Your task to perform on an android device: turn on sleep mode Image 0: 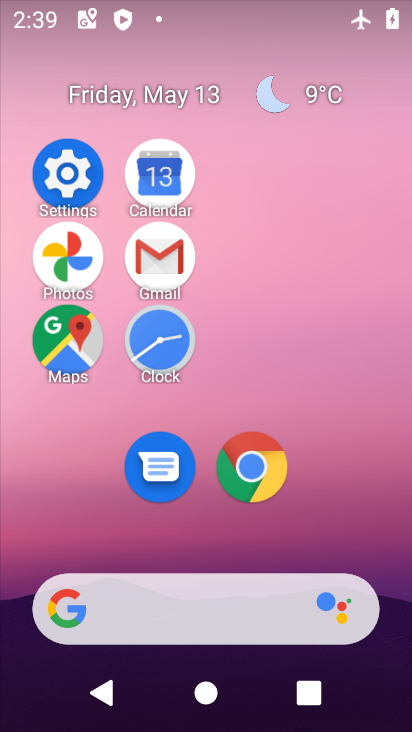
Step 0: click (89, 194)
Your task to perform on an android device: turn on sleep mode Image 1: 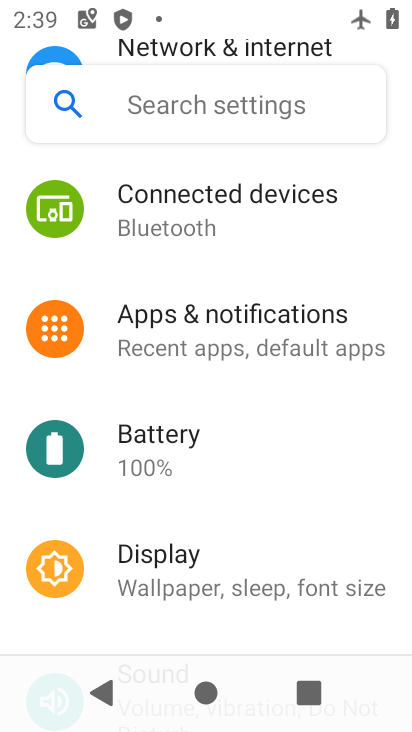
Step 1: drag from (276, 248) to (291, 86)
Your task to perform on an android device: turn on sleep mode Image 2: 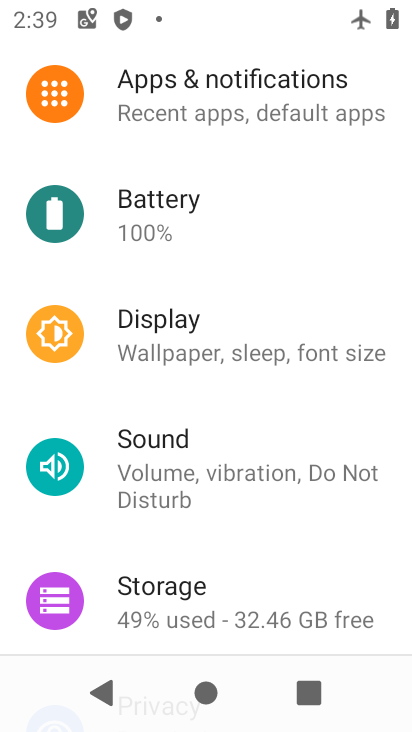
Step 2: click (228, 366)
Your task to perform on an android device: turn on sleep mode Image 3: 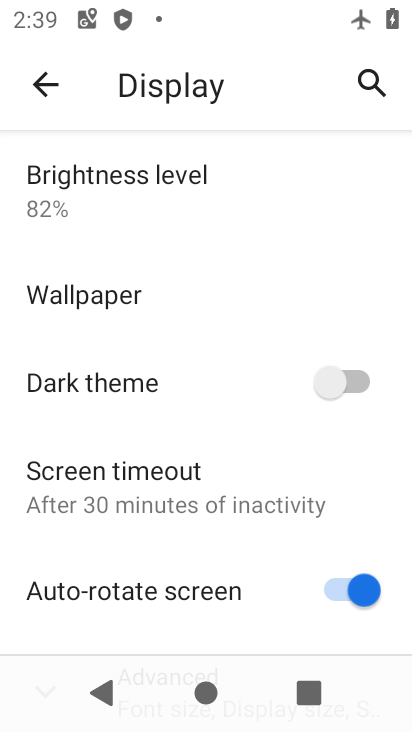
Step 3: click (222, 502)
Your task to perform on an android device: turn on sleep mode Image 4: 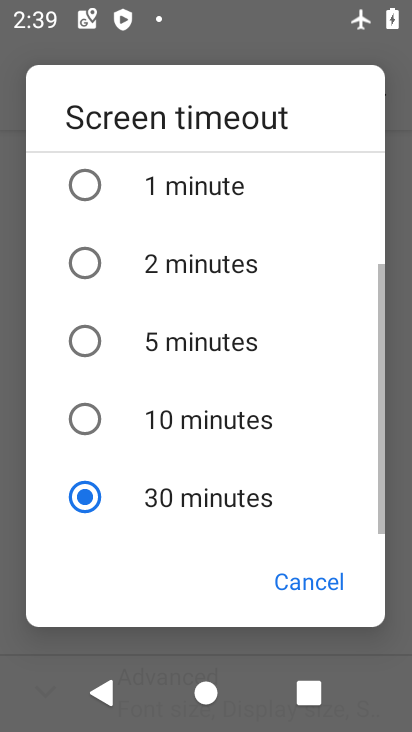
Step 4: task complete